Your task to perform on an android device: open chrome privacy settings Image 0: 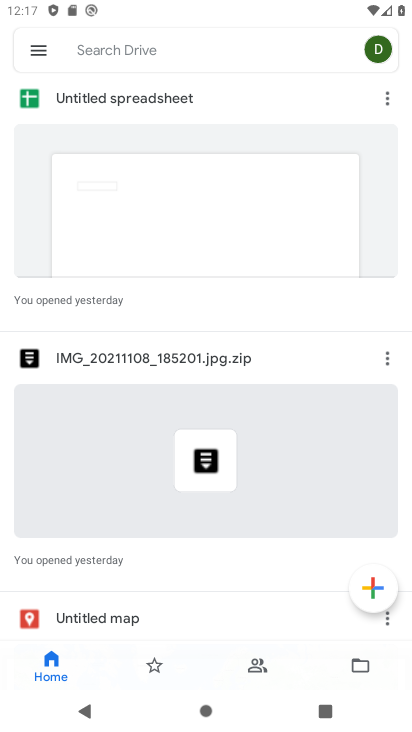
Step 0: press home button
Your task to perform on an android device: open chrome privacy settings Image 1: 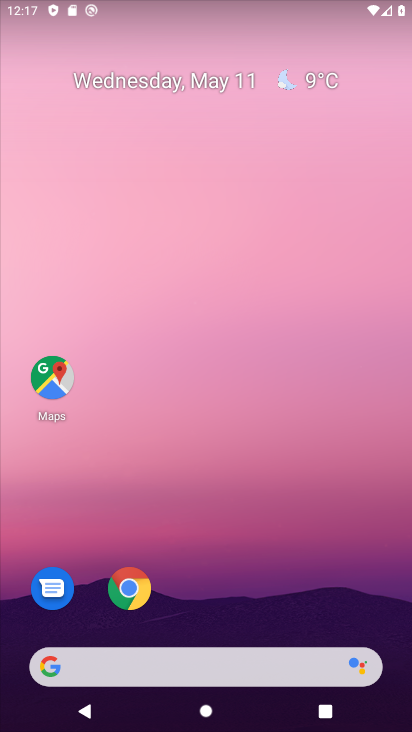
Step 1: click (128, 598)
Your task to perform on an android device: open chrome privacy settings Image 2: 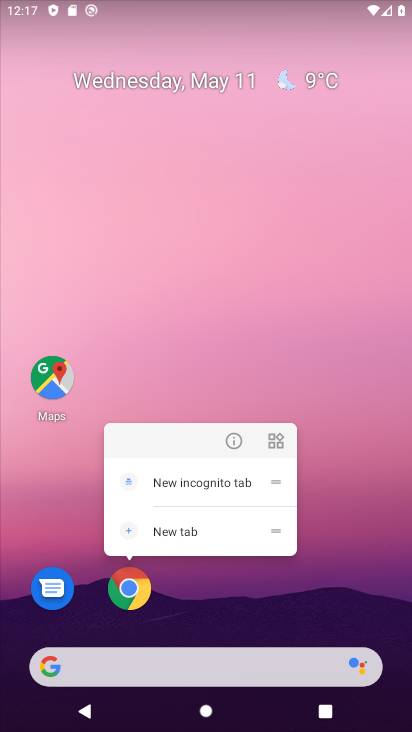
Step 2: click (137, 593)
Your task to perform on an android device: open chrome privacy settings Image 3: 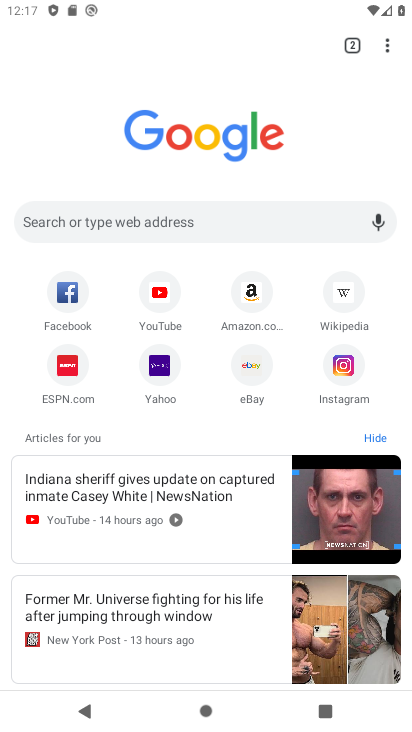
Step 3: drag from (389, 49) to (250, 393)
Your task to perform on an android device: open chrome privacy settings Image 4: 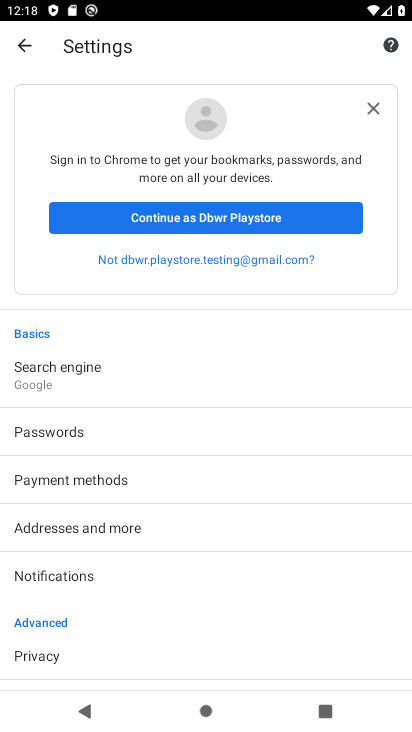
Step 4: click (39, 662)
Your task to perform on an android device: open chrome privacy settings Image 5: 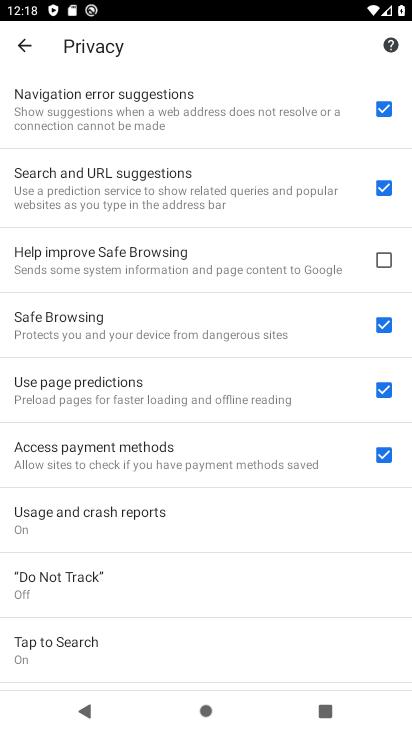
Step 5: task complete